Your task to perform on an android device: turn notification dots off Image 0: 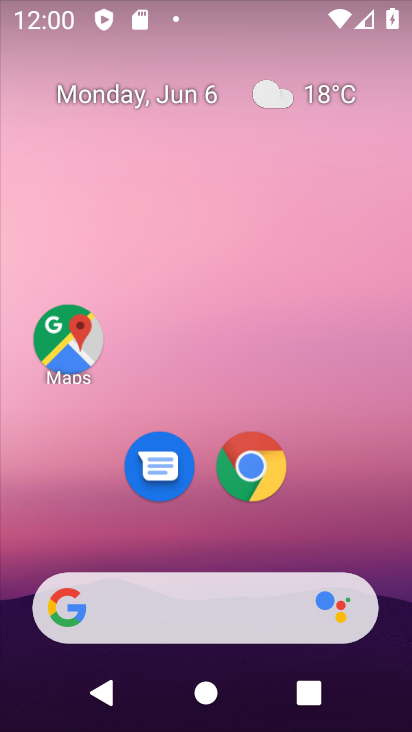
Step 0: drag from (367, 534) to (123, 2)
Your task to perform on an android device: turn notification dots off Image 1: 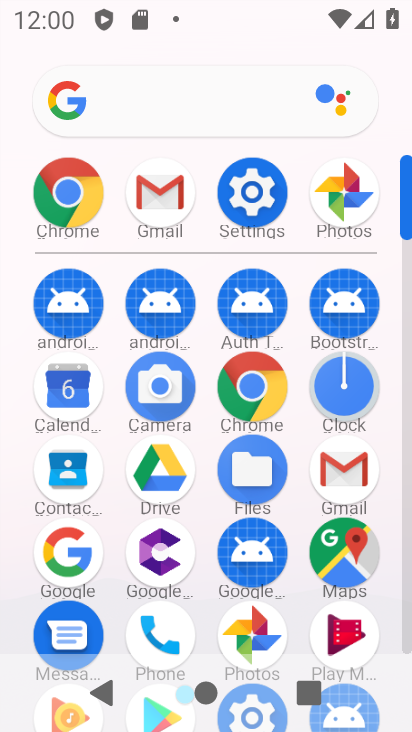
Step 1: click (251, 190)
Your task to perform on an android device: turn notification dots off Image 2: 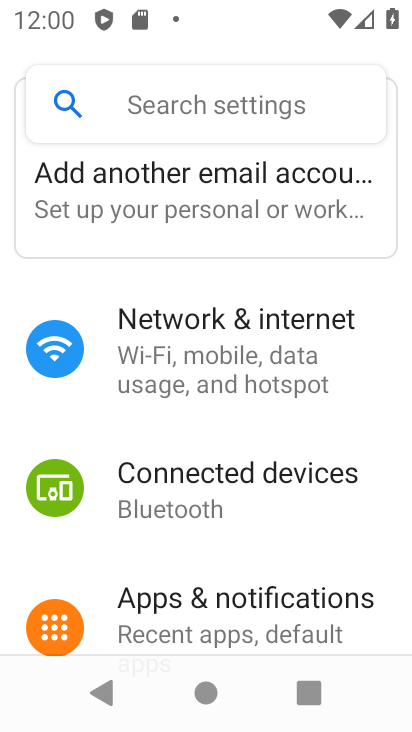
Step 2: click (274, 623)
Your task to perform on an android device: turn notification dots off Image 3: 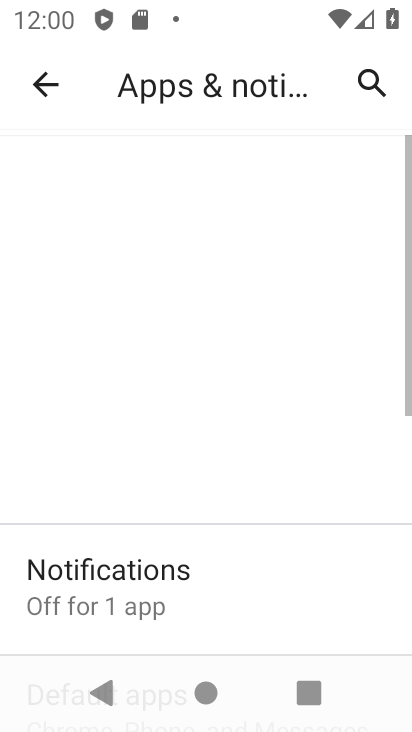
Step 3: drag from (260, 576) to (229, 233)
Your task to perform on an android device: turn notification dots off Image 4: 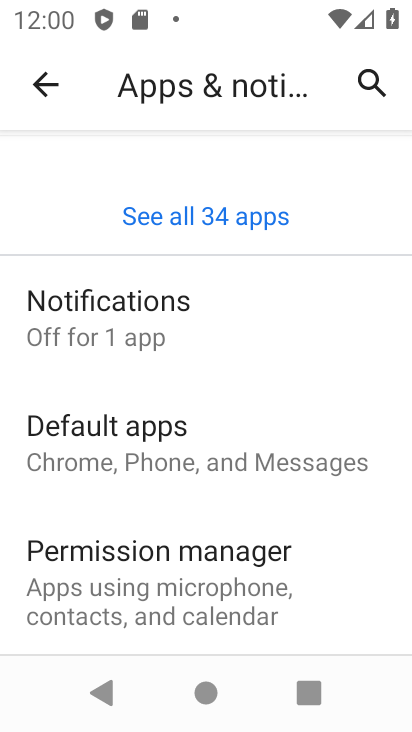
Step 4: click (129, 307)
Your task to perform on an android device: turn notification dots off Image 5: 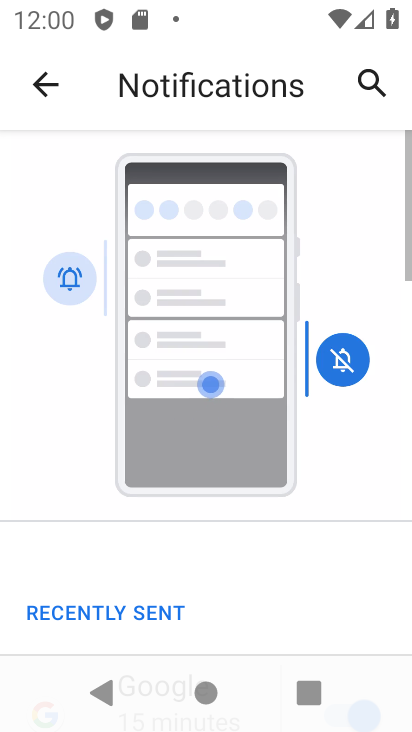
Step 5: drag from (249, 586) to (269, 167)
Your task to perform on an android device: turn notification dots off Image 6: 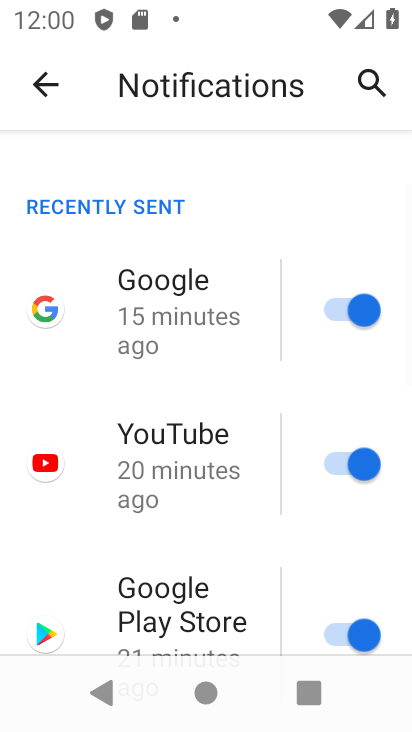
Step 6: drag from (203, 607) to (243, 168)
Your task to perform on an android device: turn notification dots off Image 7: 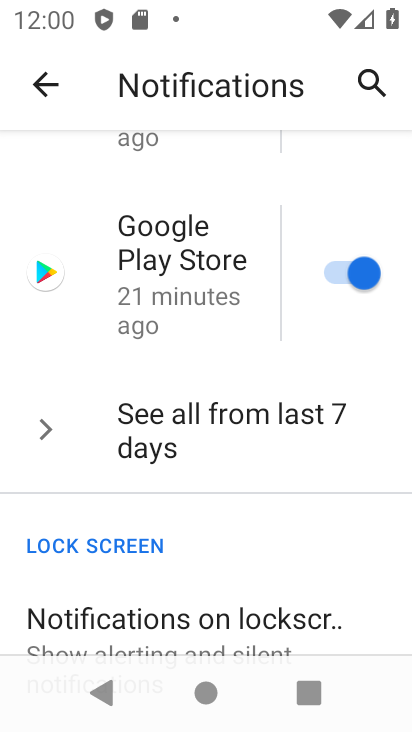
Step 7: drag from (163, 634) to (204, 204)
Your task to perform on an android device: turn notification dots off Image 8: 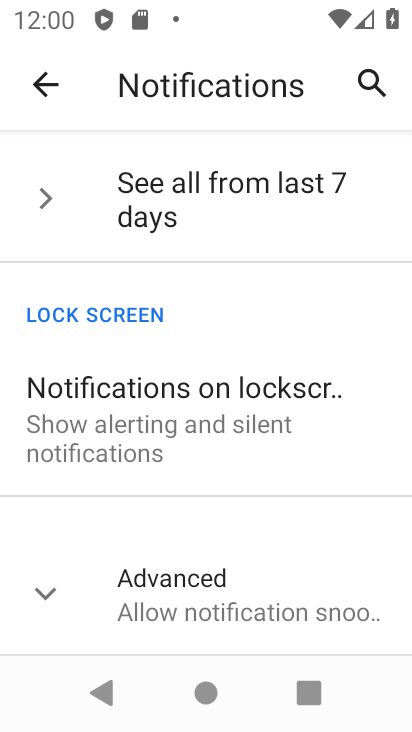
Step 8: click (55, 592)
Your task to perform on an android device: turn notification dots off Image 9: 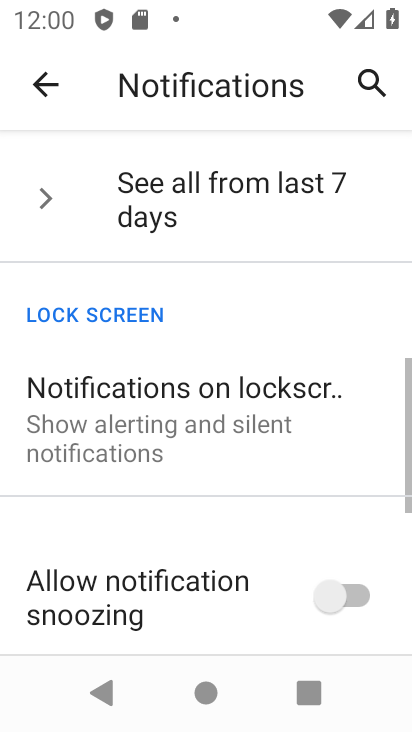
Step 9: drag from (160, 574) to (228, 169)
Your task to perform on an android device: turn notification dots off Image 10: 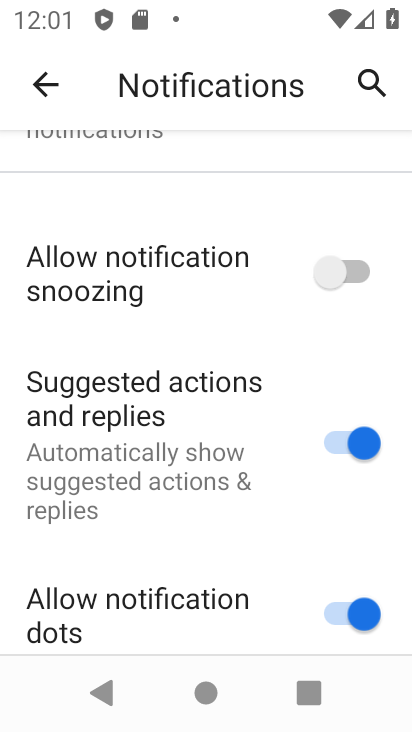
Step 10: click (344, 617)
Your task to perform on an android device: turn notification dots off Image 11: 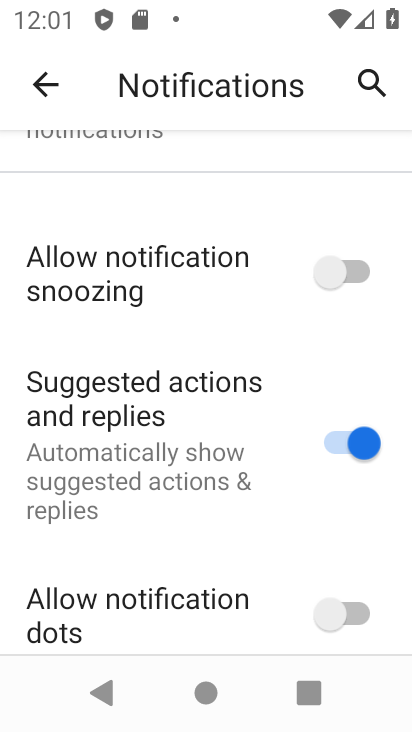
Step 11: task complete